Your task to perform on an android device: install app "HBO Max: Stream TV & Movies" Image 0: 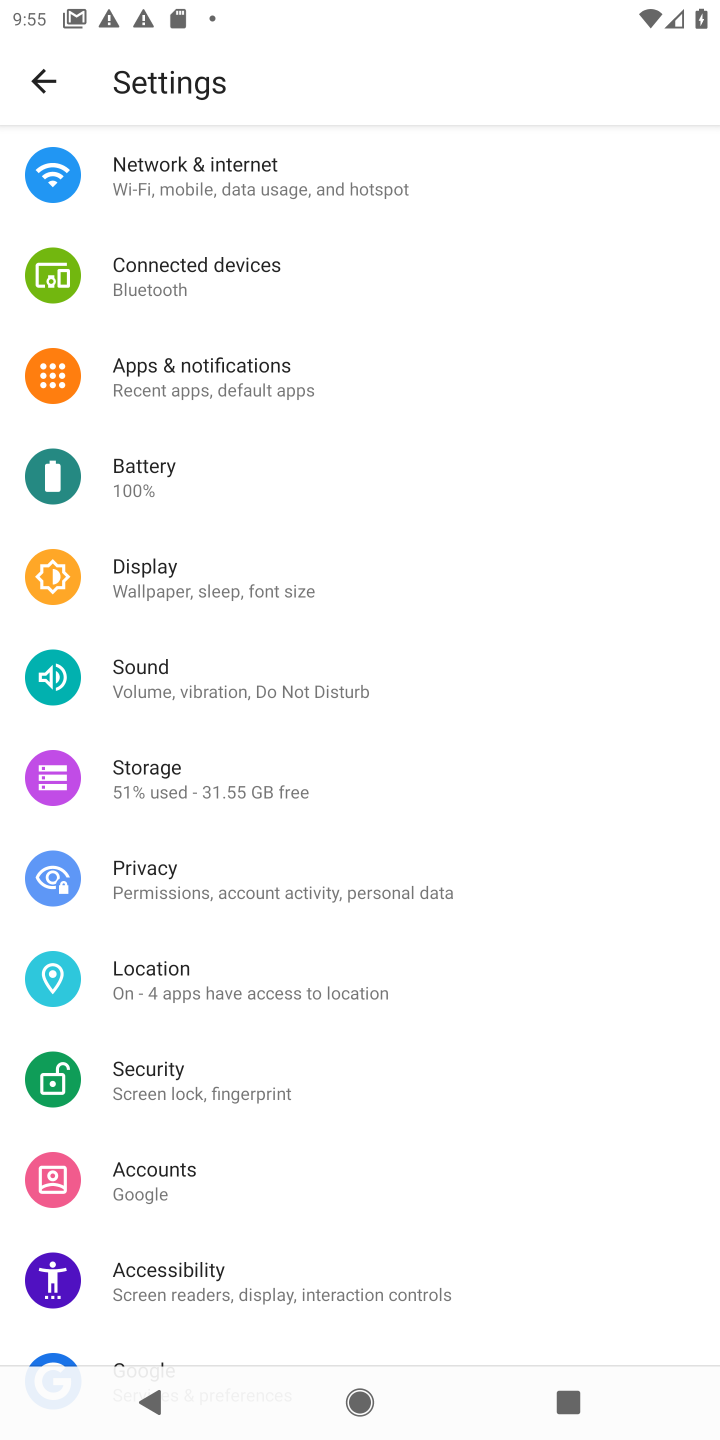
Step 0: press home button
Your task to perform on an android device: install app "HBO Max: Stream TV & Movies" Image 1: 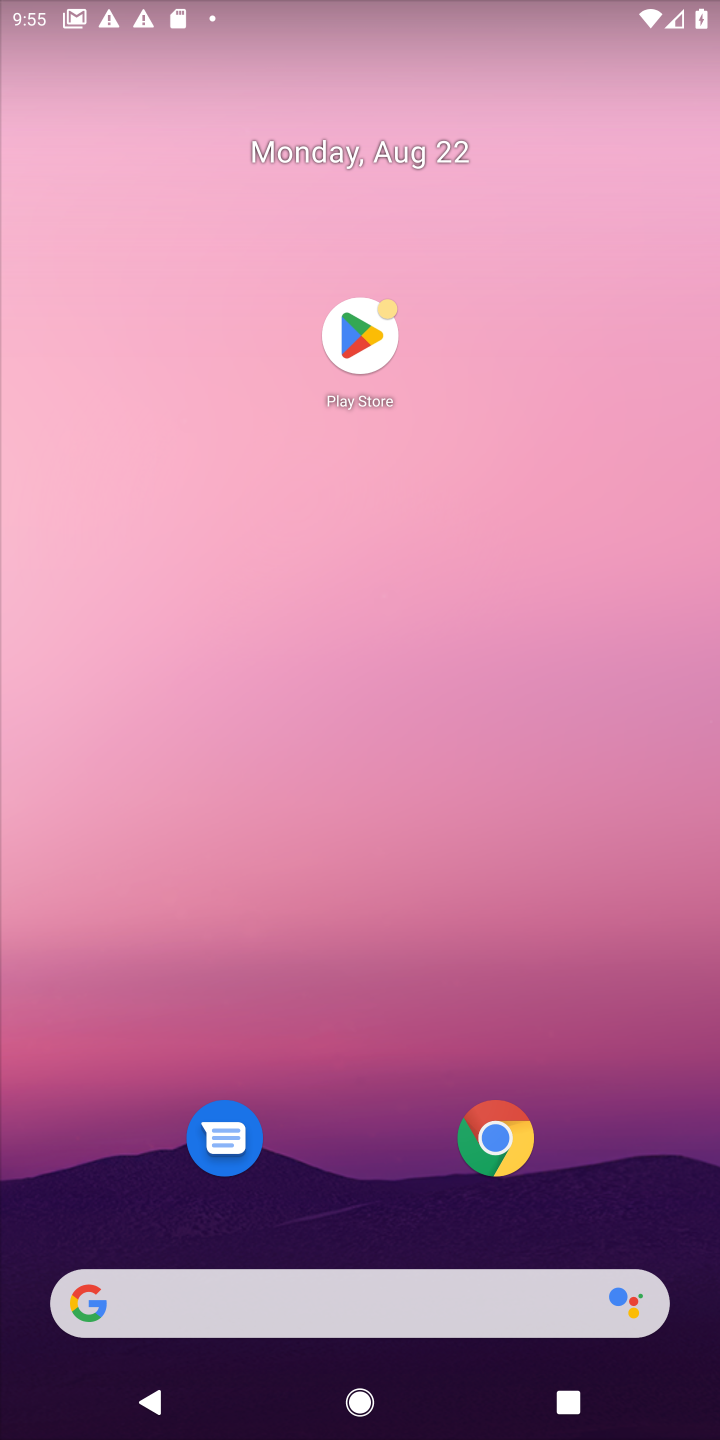
Step 1: click (359, 344)
Your task to perform on an android device: install app "HBO Max: Stream TV & Movies" Image 2: 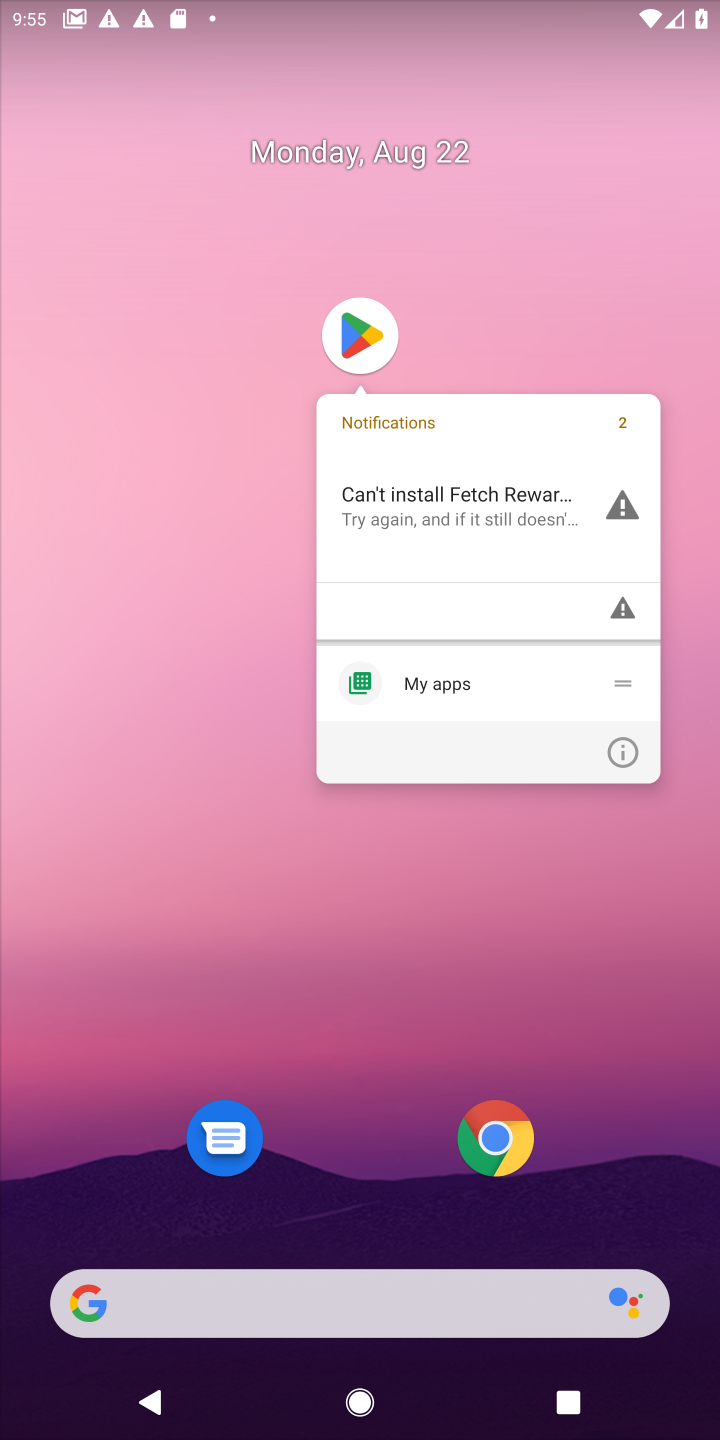
Step 2: click (348, 344)
Your task to perform on an android device: install app "HBO Max: Stream TV & Movies" Image 3: 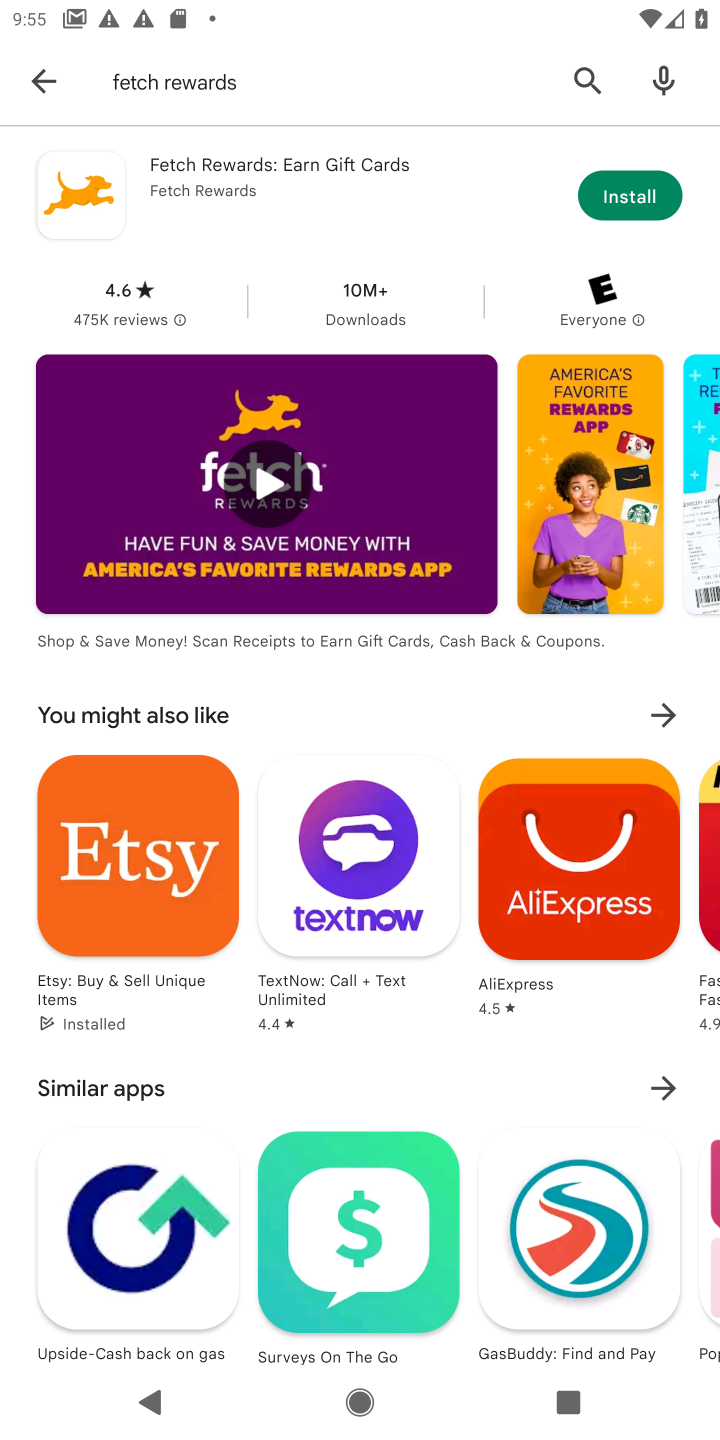
Step 3: click (26, 83)
Your task to perform on an android device: install app "HBO Max: Stream TV & Movies" Image 4: 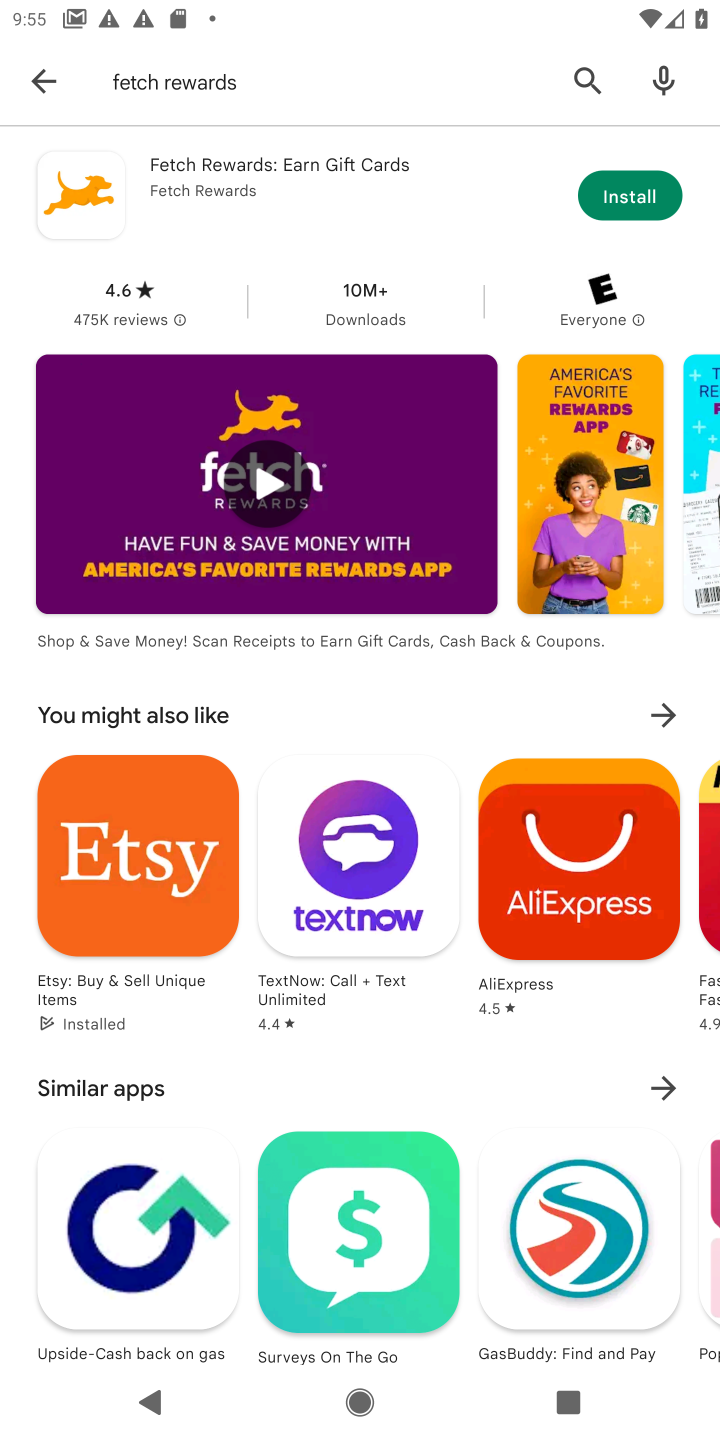
Step 4: click (41, 78)
Your task to perform on an android device: install app "HBO Max: Stream TV & Movies" Image 5: 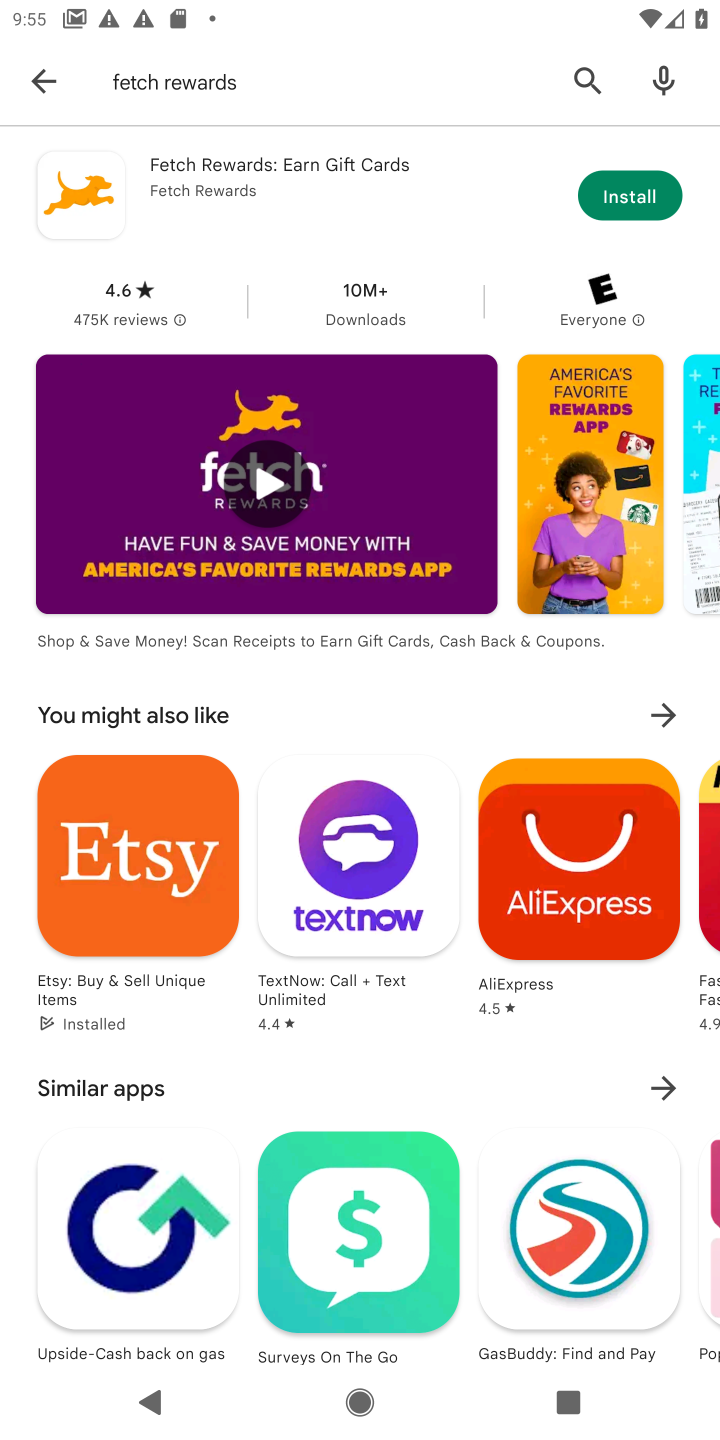
Step 5: click (588, 76)
Your task to perform on an android device: install app "HBO Max: Stream TV & Movies" Image 6: 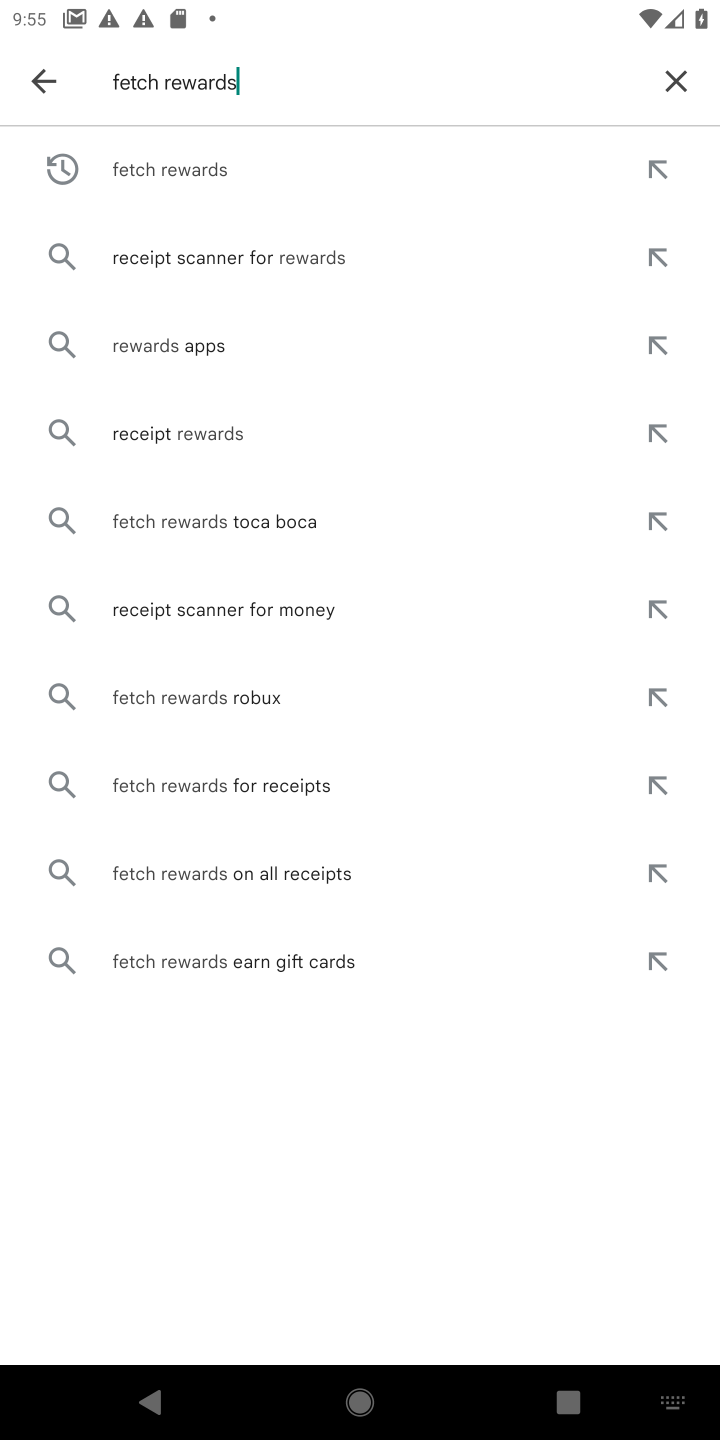
Step 6: click (674, 80)
Your task to perform on an android device: install app "HBO Max: Stream TV & Movies" Image 7: 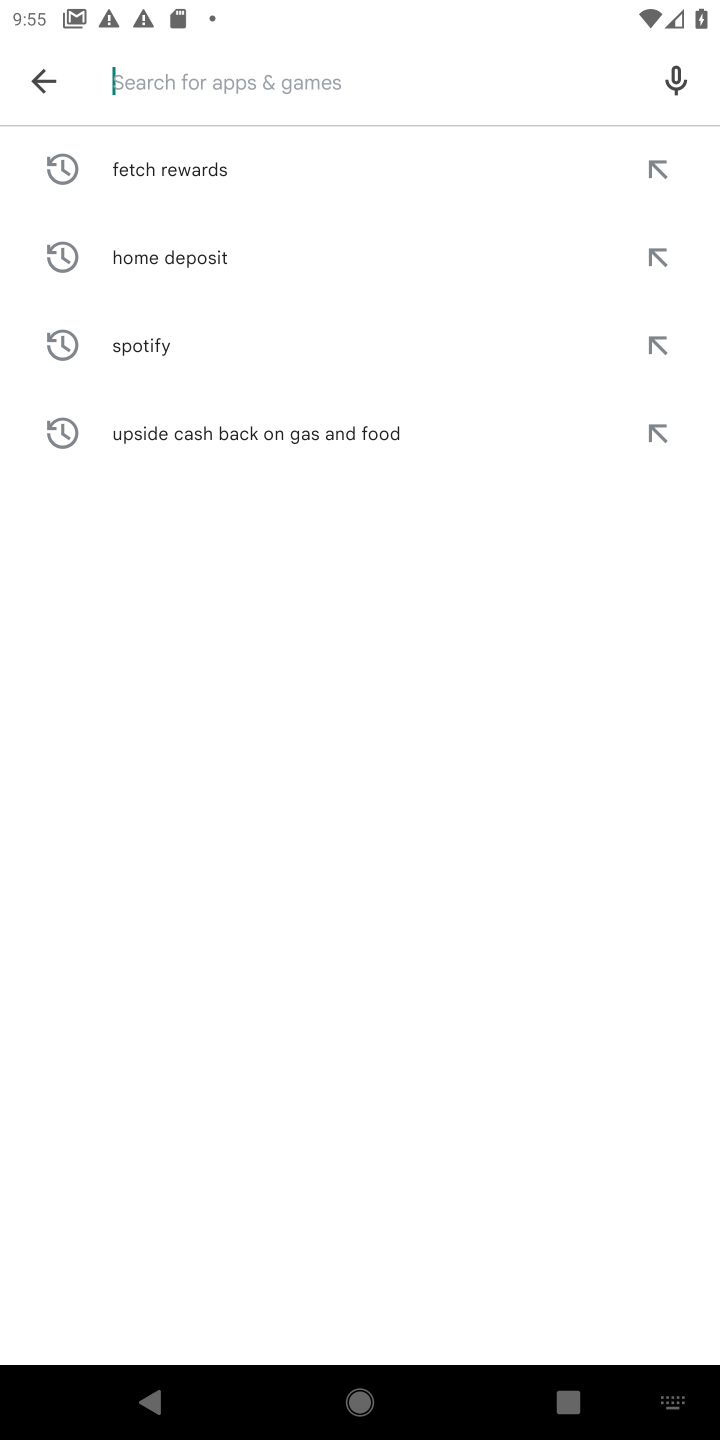
Step 7: type "hbo max"
Your task to perform on an android device: install app "HBO Max: Stream TV & Movies" Image 8: 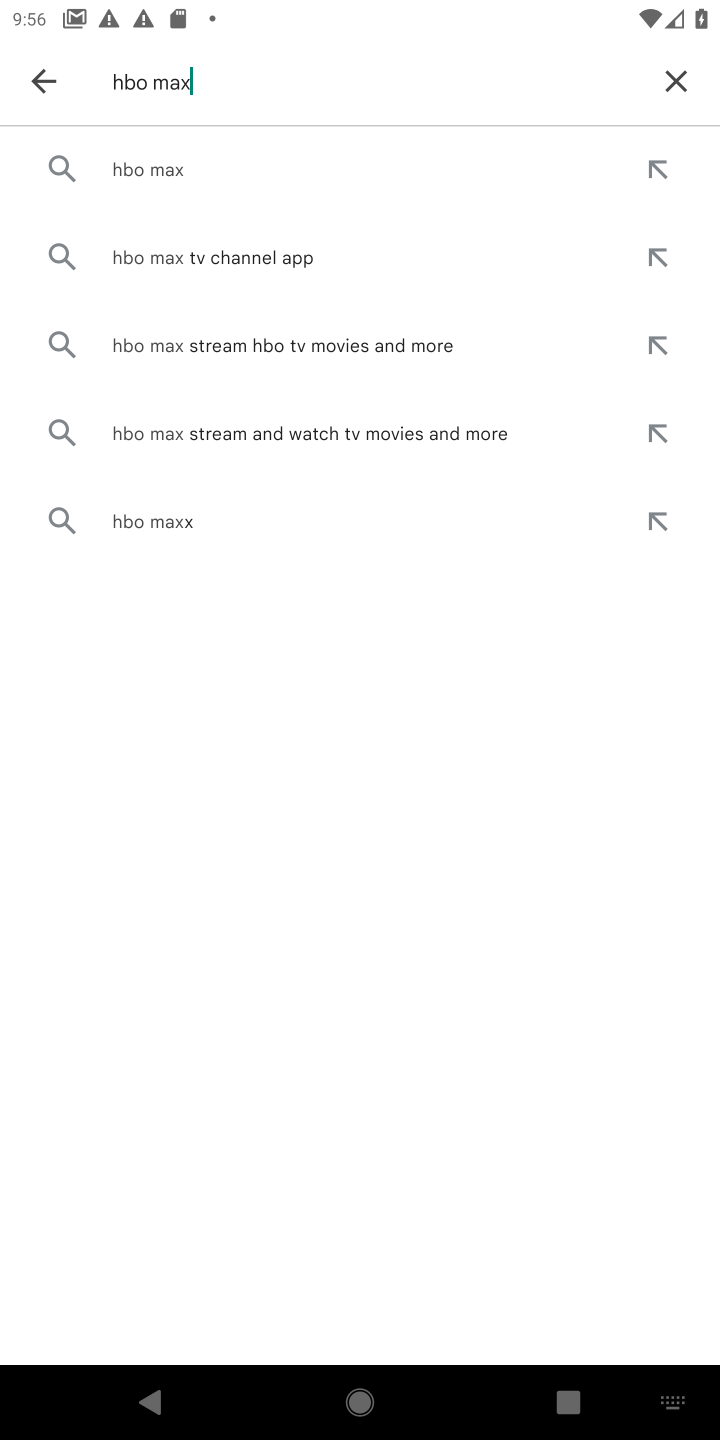
Step 8: click (239, 440)
Your task to perform on an android device: install app "HBO Max: Stream TV & Movies" Image 9: 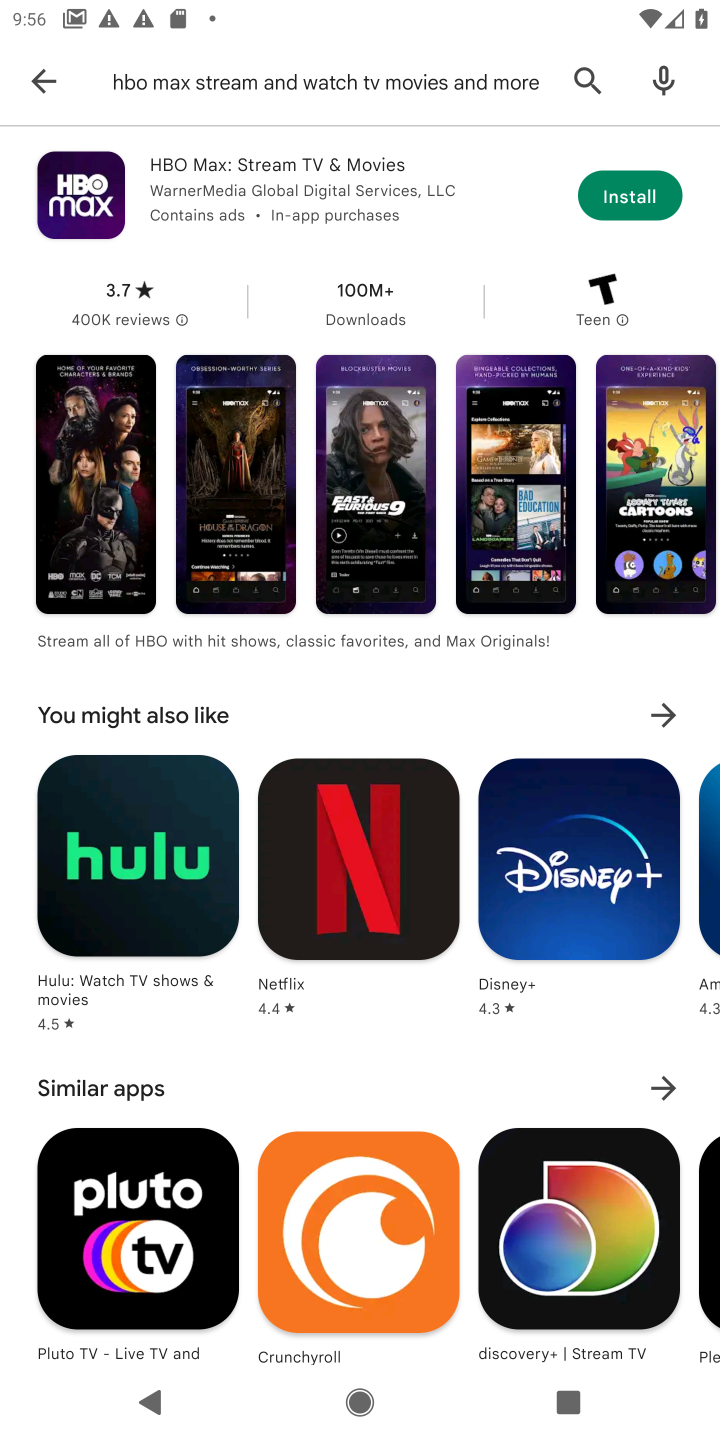
Step 9: click (628, 205)
Your task to perform on an android device: install app "HBO Max: Stream TV & Movies" Image 10: 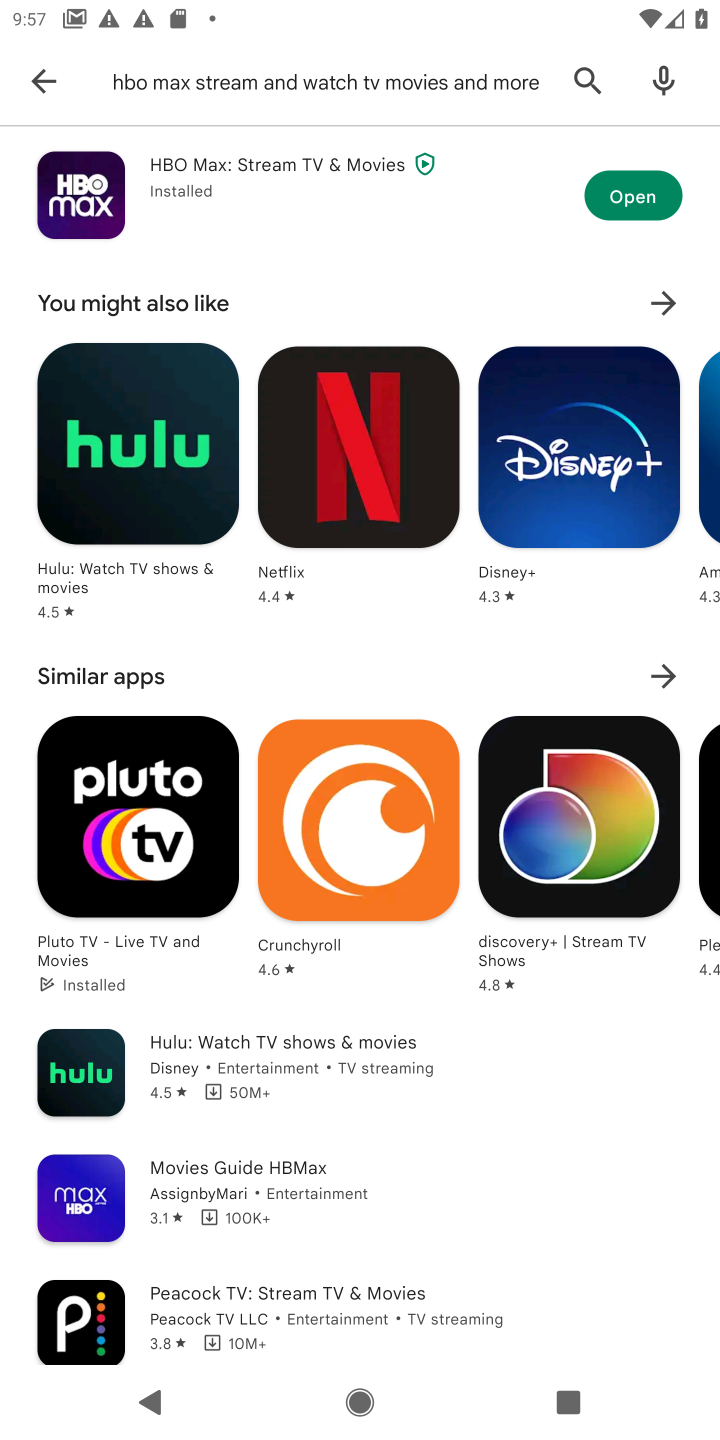
Step 10: task complete